Your task to perform on an android device: Open Android settings Image 0: 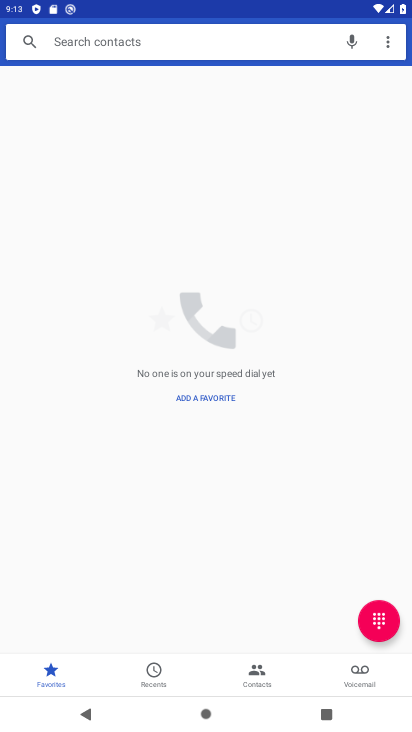
Step 0: press home button
Your task to perform on an android device: Open Android settings Image 1: 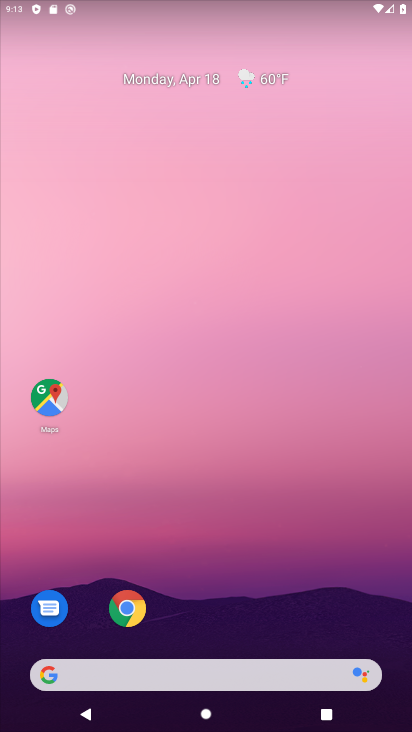
Step 1: click (403, 179)
Your task to perform on an android device: Open Android settings Image 2: 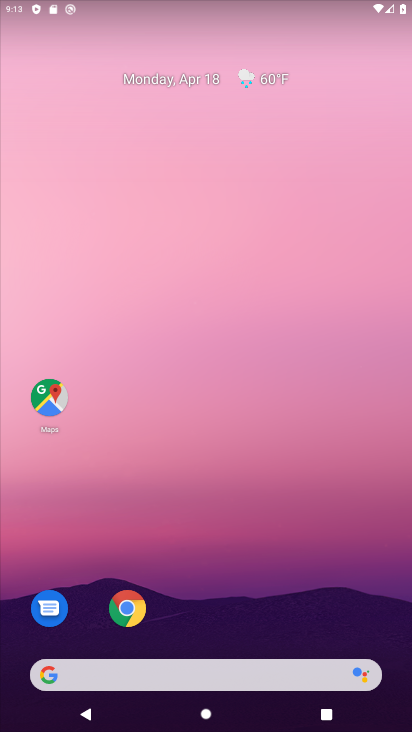
Step 2: drag from (369, 627) to (411, 118)
Your task to perform on an android device: Open Android settings Image 3: 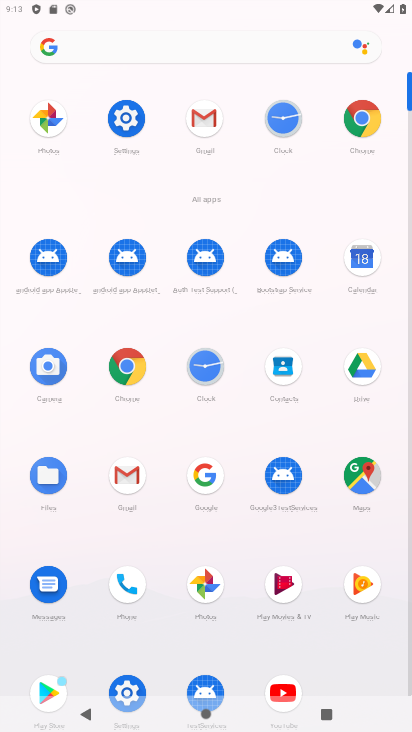
Step 3: click (125, 122)
Your task to perform on an android device: Open Android settings Image 4: 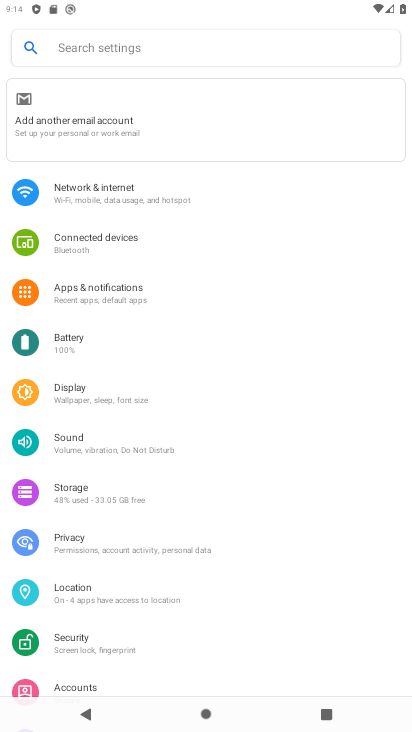
Step 4: drag from (271, 613) to (264, 156)
Your task to perform on an android device: Open Android settings Image 5: 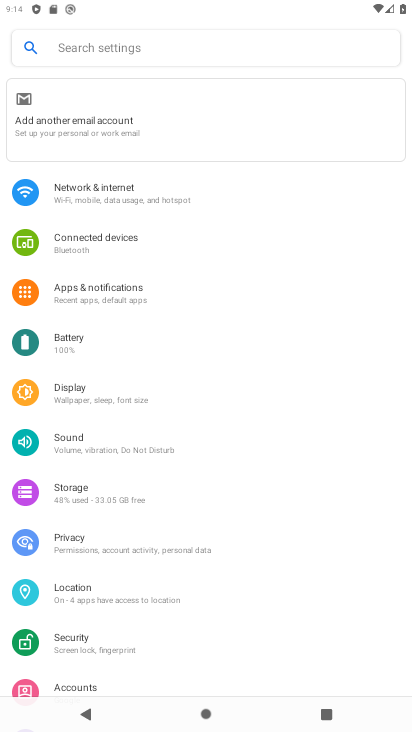
Step 5: drag from (261, 502) to (253, 273)
Your task to perform on an android device: Open Android settings Image 6: 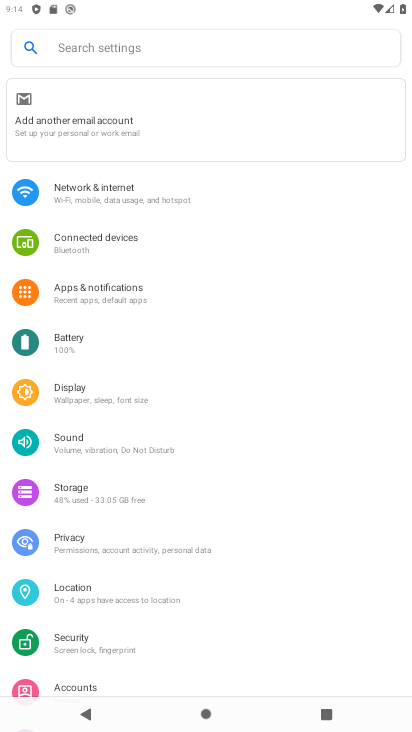
Step 6: drag from (316, 351) to (307, 232)
Your task to perform on an android device: Open Android settings Image 7: 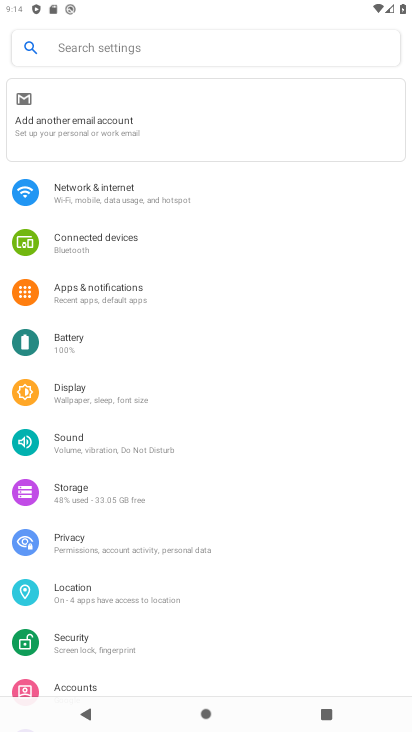
Step 7: drag from (299, 650) to (267, 227)
Your task to perform on an android device: Open Android settings Image 8: 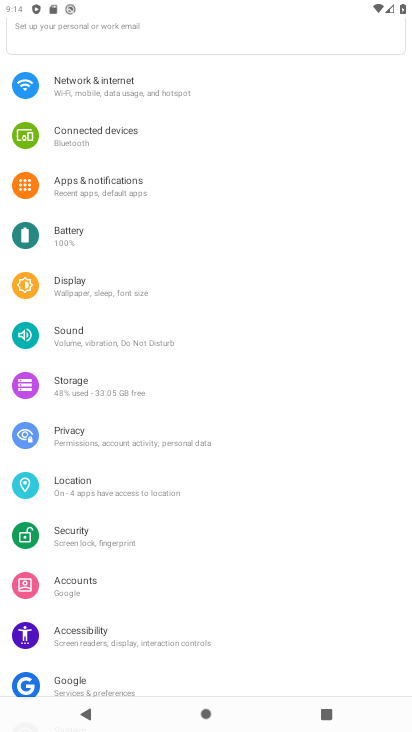
Step 8: click (243, 188)
Your task to perform on an android device: Open Android settings Image 9: 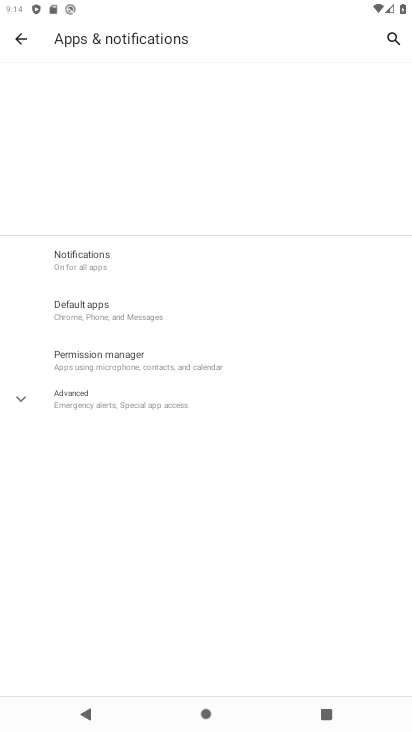
Step 9: drag from (270, 644) to (255, 174)
Your task to perform on an android device: Open Android settings Image 10: 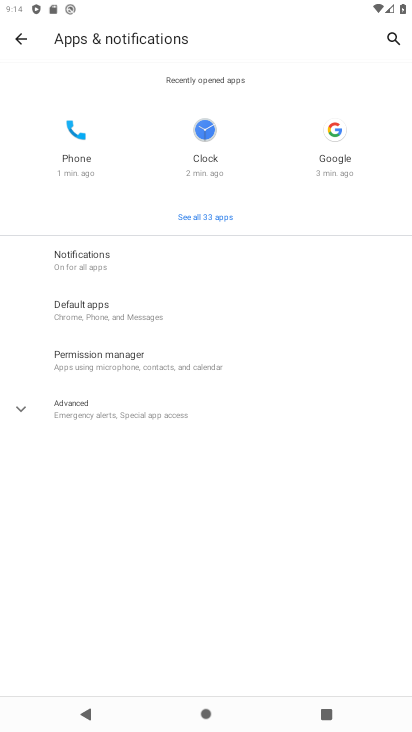
Step 10: press back button
Your task to perform on an android device: Open Android settings Image 11: 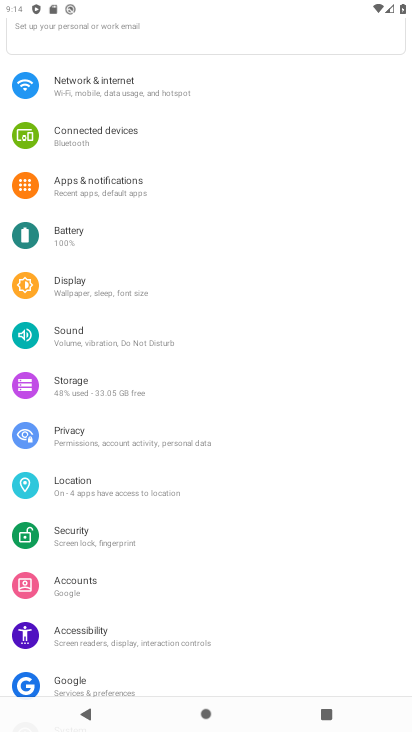
Step 11: drag from (261, 357) to (255, 237)
Your task to perform on an android device: Open Android settings Image 12: 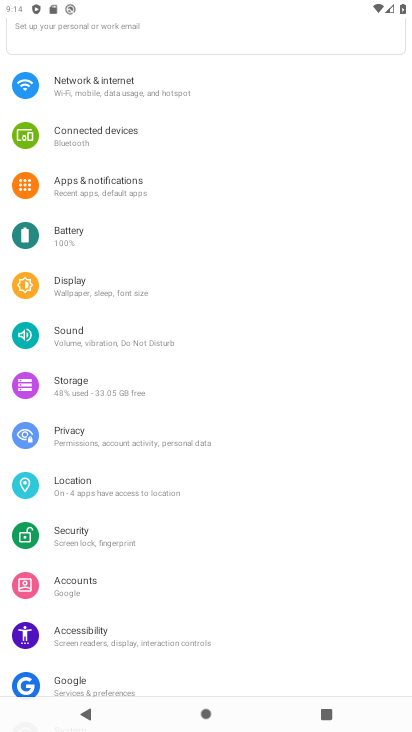
Step 12: drag from (265, 621) to (267, 244)
Your task to perform on an android device: Open Android settings Image 13: 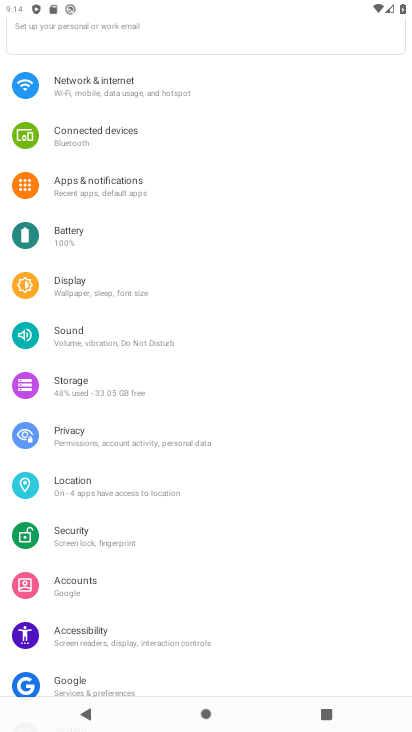
Step 13: drag from (313, 654) to (287, 265)
Your task to perform on an android device: Open Android settings Image 14: 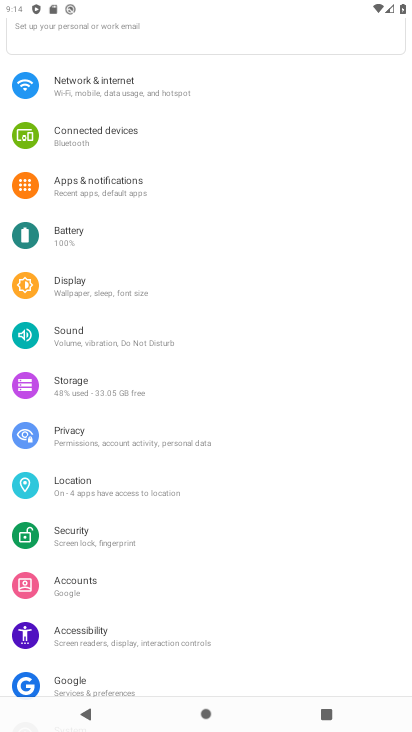
Step 14: drag from (275, 635) to (245, 126)
Your task to perform on an android device: Open Android settings Image 15: 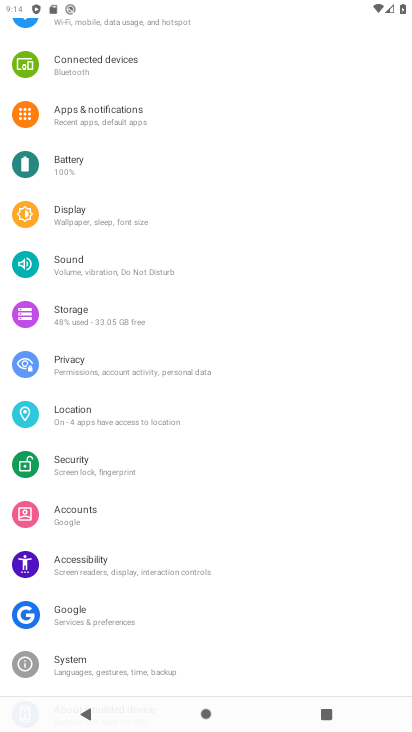
Step 15: drag from (295, 427) to (300, 85)
Your task to perform on an android device: Open Android settings Image 16: 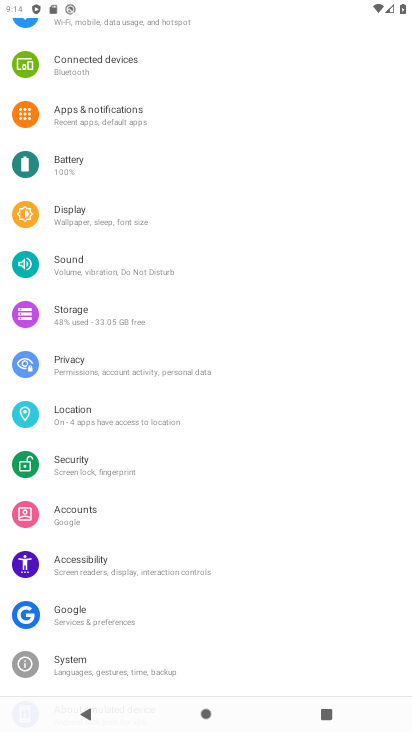
Step 16: drag from (303, 481) to (276, 200)
Your task to perform on an android device: Open Android settings Image 17: 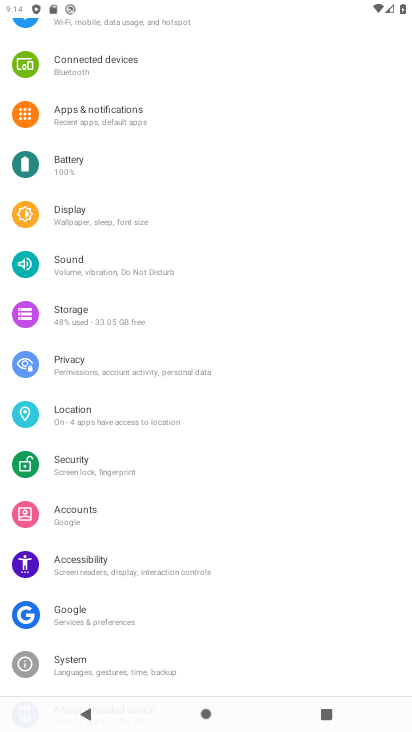
Step 17: drag from (296, 616) to (310, 93)
Your task to perform on an android device: Open Android settings Image 18: 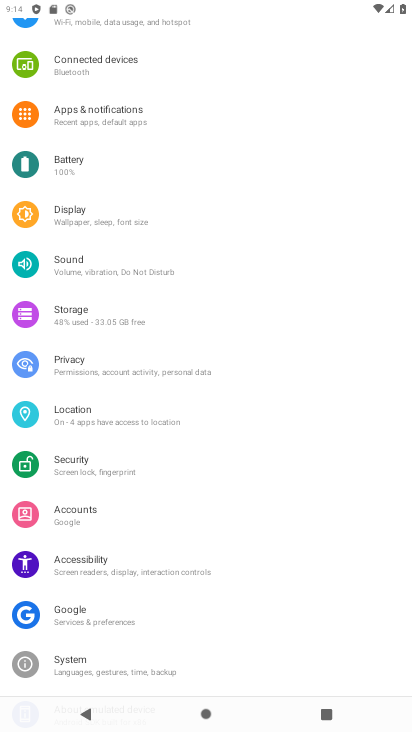
Step 18: drag from (314, 634) to (284, 102)
Your task to perform on an android device: Open Android settings Image 19: 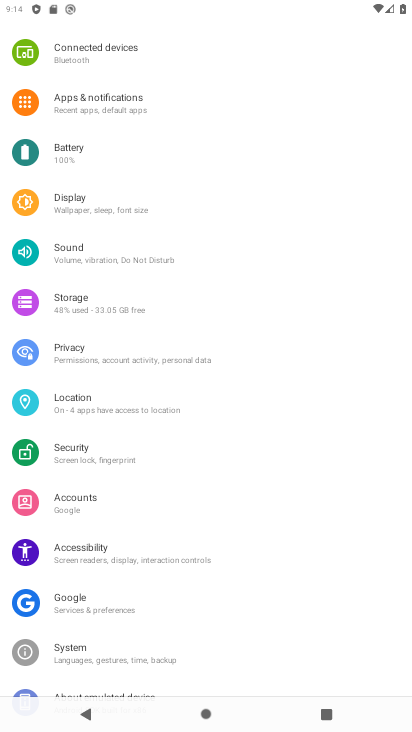
Step 19: drag from (308, 533) to (325, 116)
Your task to perform on an android device: Open Android settings Image 20: 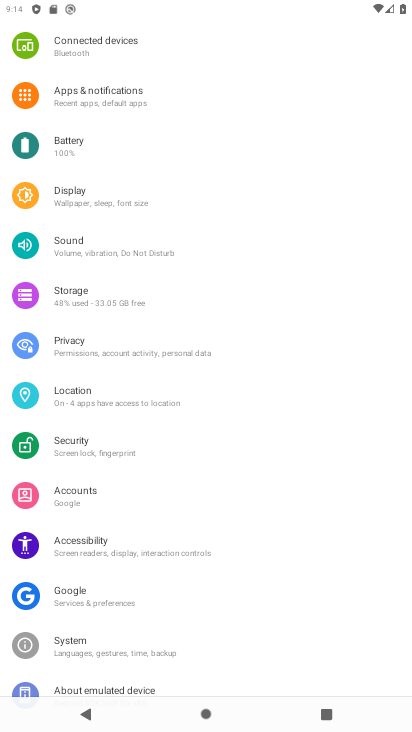
Step 20: click (89, 680)
Your task to perform on an android device: Open Android settings Image 21: 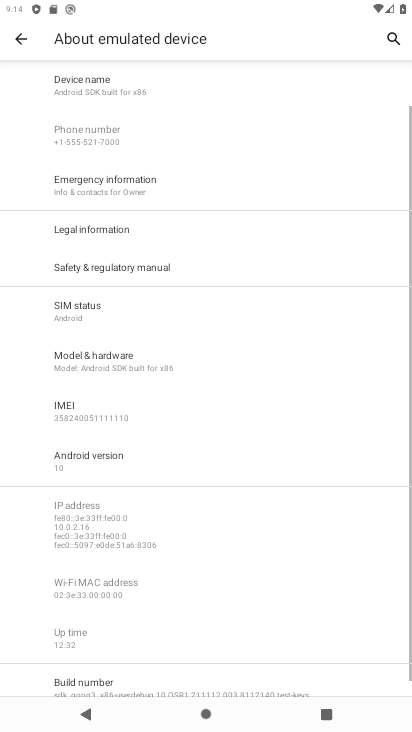
Step 21: click (86, 453)
Your task to perform on an android device: Open Android settings Image 22: 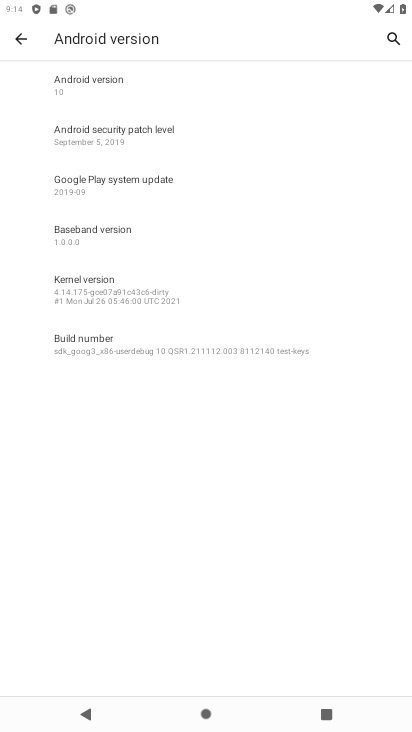
Step 22: click (109, 94)
Your task to perform on an android device: Open Android settings Image 23: 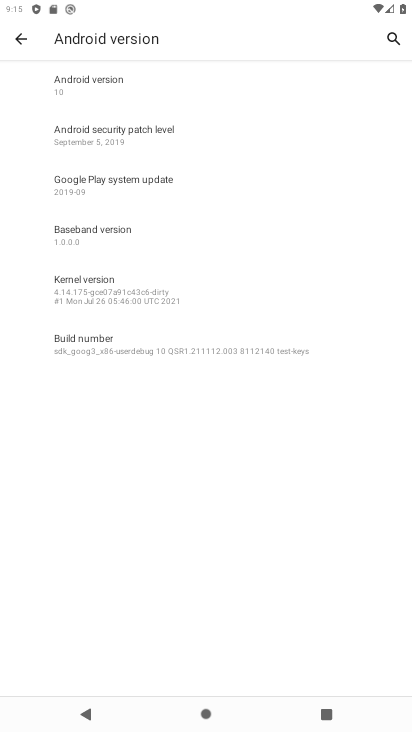
Step 23: task complete